Your task to perform on an android device: What's the weather going to be this weekend? Image 0: 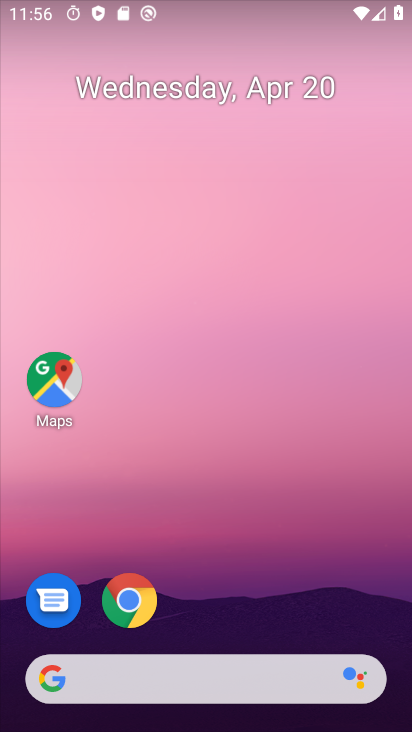
Step 0: drag from (384, 591) to (361, 47)
Your task to perform on an android device: What's the weather going to be this weekend? Image 1: 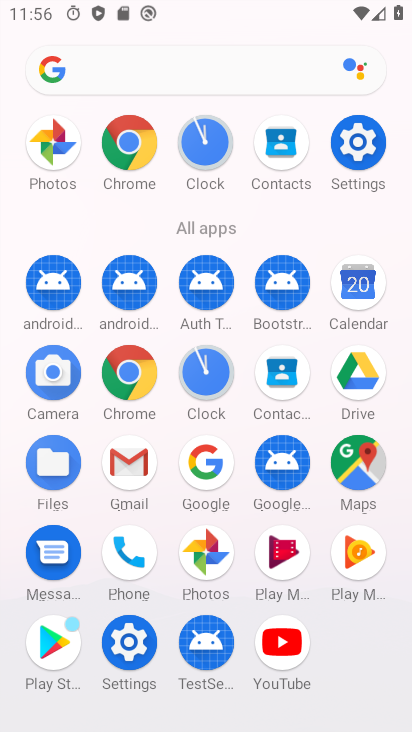
Step 1: click (120, 367)
Your task to perform on an android device: What's the weather going to be this weekend? Image 2: 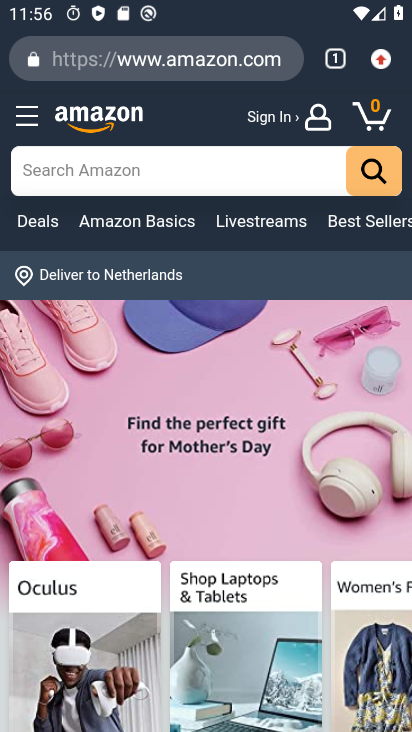
Step 2: click (166, 167)
Your task to perform on an android device: What's the weather going to be this weekend? Image 3: 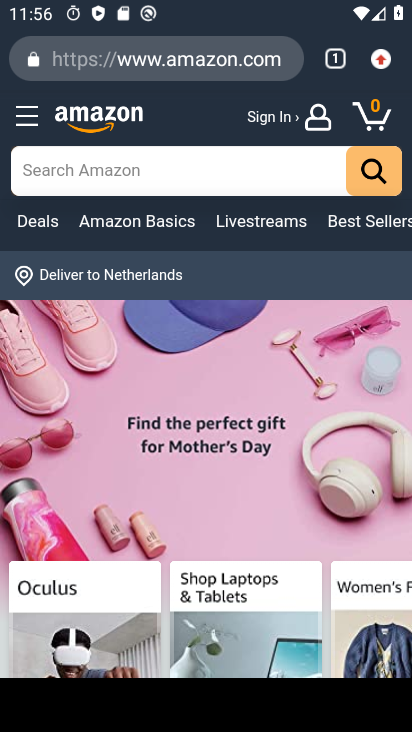
Step 3: click (196, 60)
Your task to perform on an android device: What's the weather going to be this weekend? Image 4: 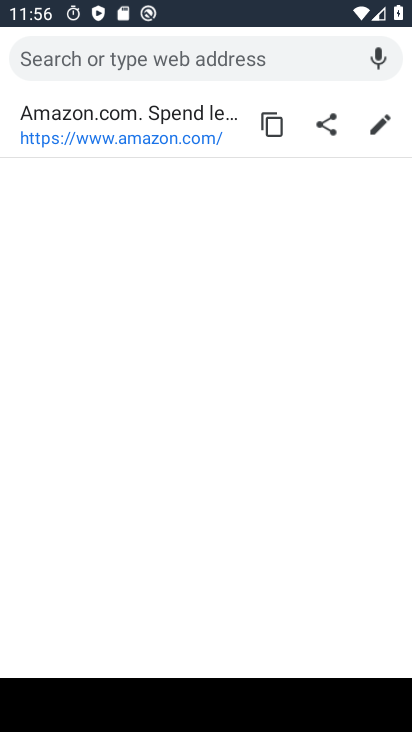
Step 4: type "what's the weather going to be this weekend"
Your task to perform on an android device: What's the weather going to be this weekend? Image 5: 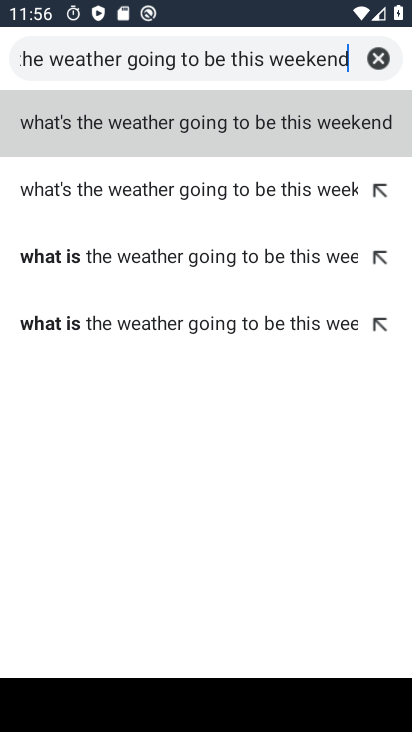
Step 5: click (156, 143)
Your task to perform on an android device: What's the weather going to be this weekend? Image 6: 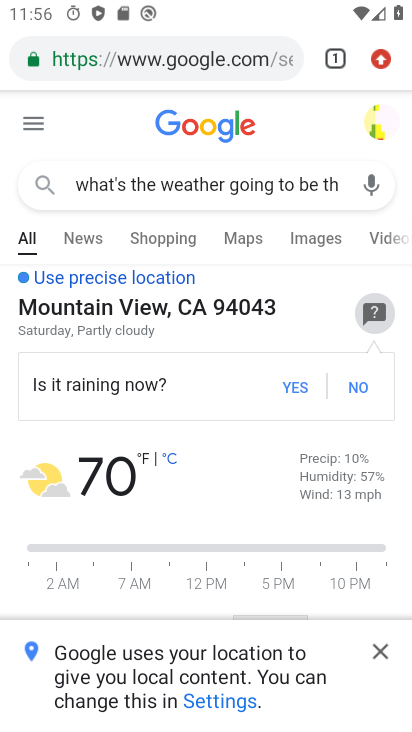
Step 6: task complete